Your task to perform on an android device: turn smart compose on in the gmail app Image 0: 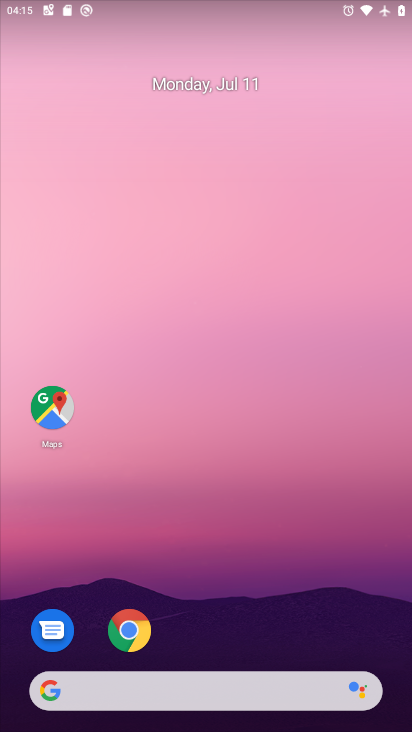
Step 0: drag from (197, 624) to (186, 103)
Your task to perform on an android device: turn smart compose on in the gmail app Image 1: 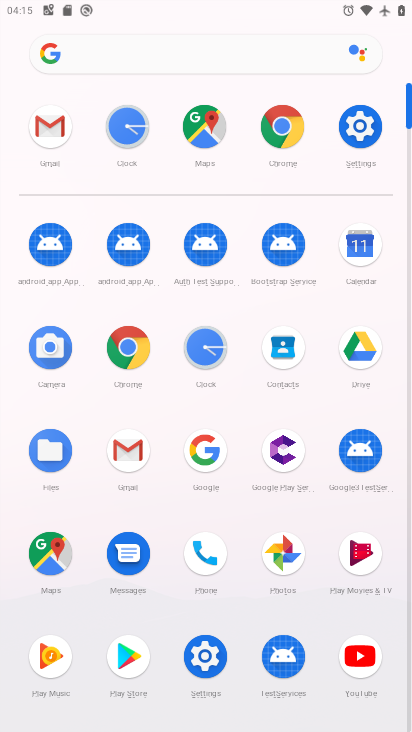
Step 1: click (345, 129)
Your task to perform on an android device: turn smart compose on in the gmail app Image 2: 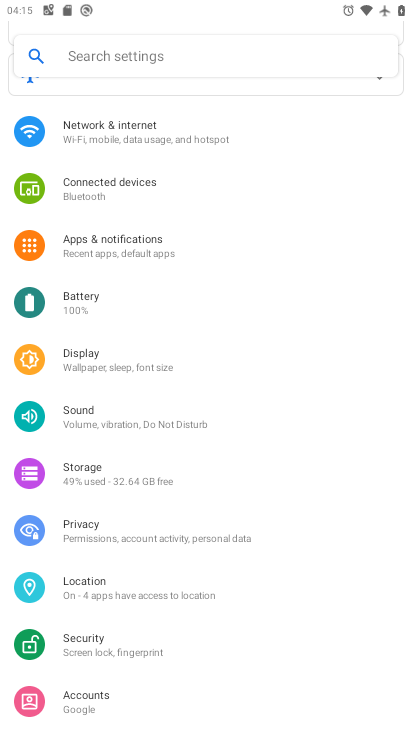
Step 2: press home button
Your task to perform on an android device: turn smart compose on in the gmail app Image 3: 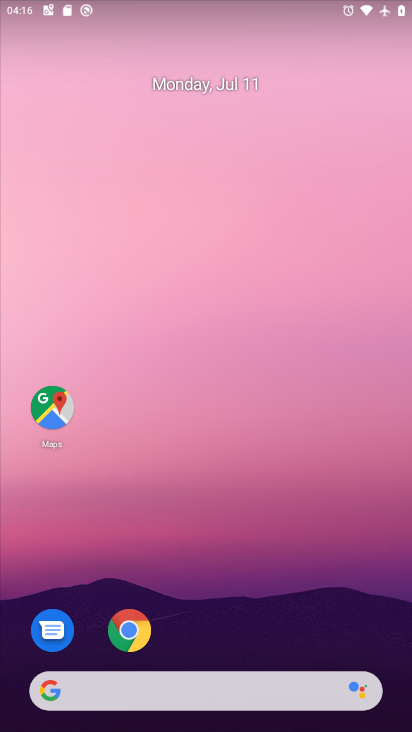
Step 3: drag from (281, 640) to (243, 97)
Your task to perform on an android device: turn smart compose on in the gmail app Image 4: 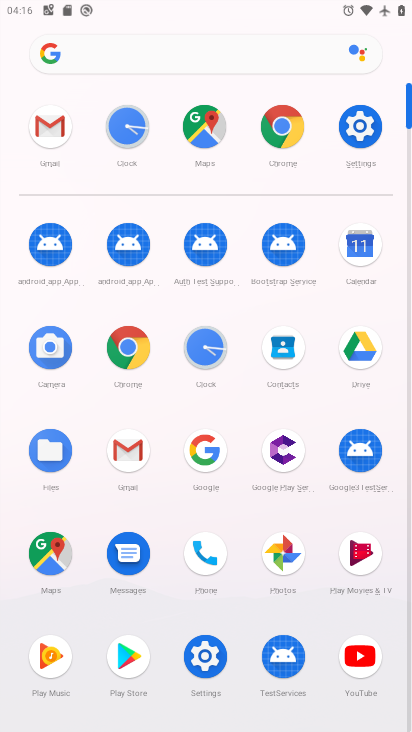
Step 4: click (68, 132)
Your task to perform on an android device: turn smart compose on in the gmail app Image 5: 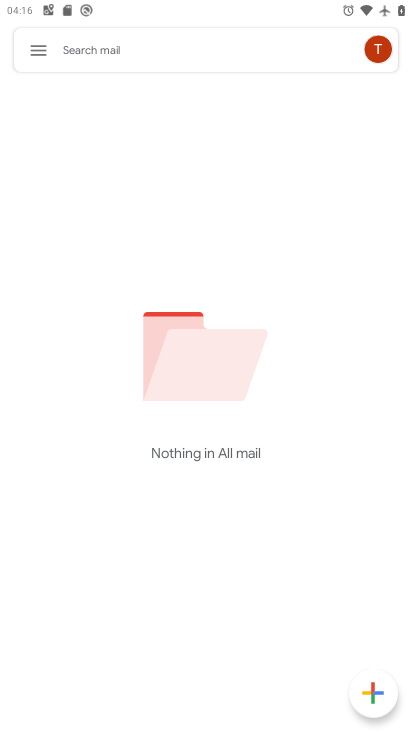
Step 5: click (52, 61)
Your task to perform on an android device: turn smart compose on in the gmail app Image 6: 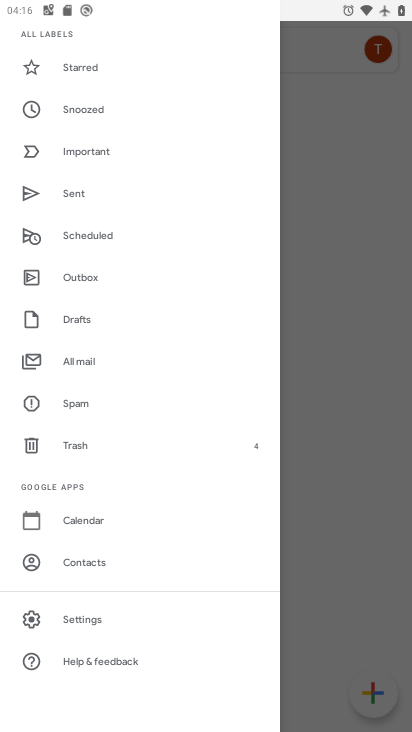
Step 6: click (95, 606)
Your task to perform on an android device: turn smart compose on in the gmail app Image 7: 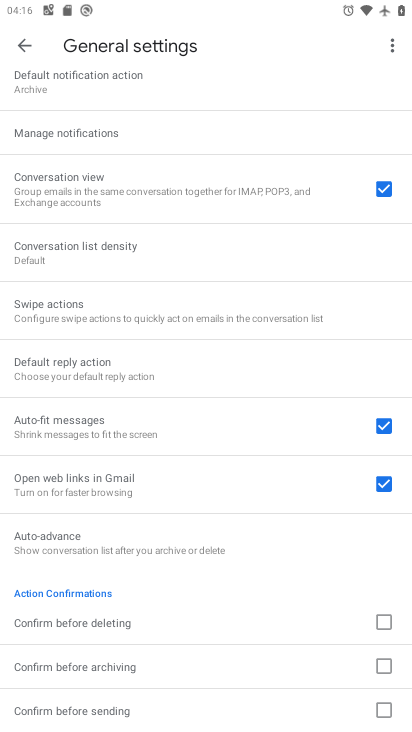
Step 7: click (27, 60)
Your task to perform on an android device: turn smart compose on in the gmail app Image 8: 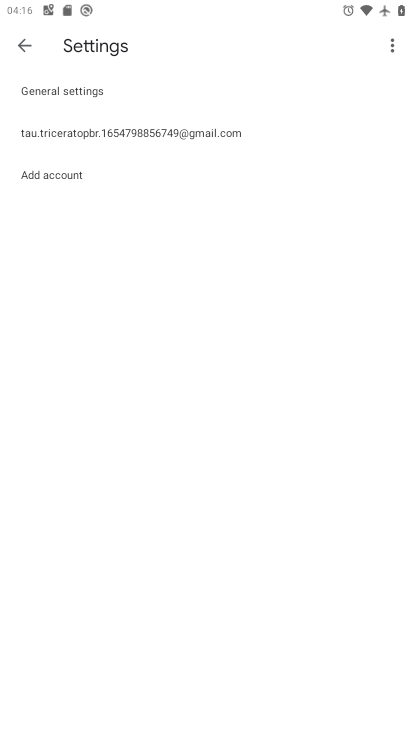
Step 8: click (131, 149)
Your task to perform on an android device: turn smart compose on in the gmail app Image 9: 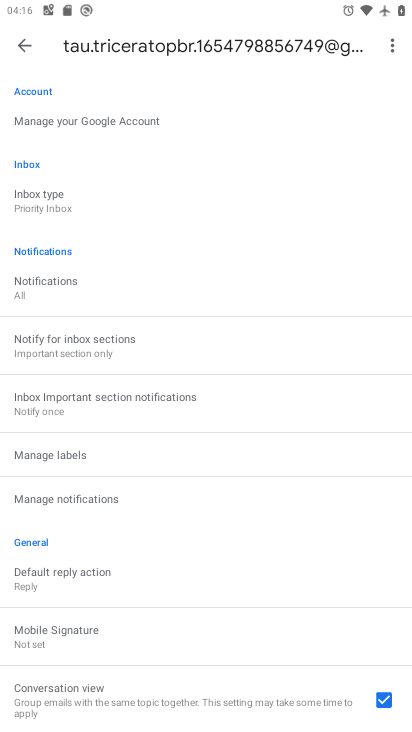
Step 9: drag from (140, 493) to (128, 287)
Your task to perform on an android device: turn smart compose on in the gmail app Image 10: 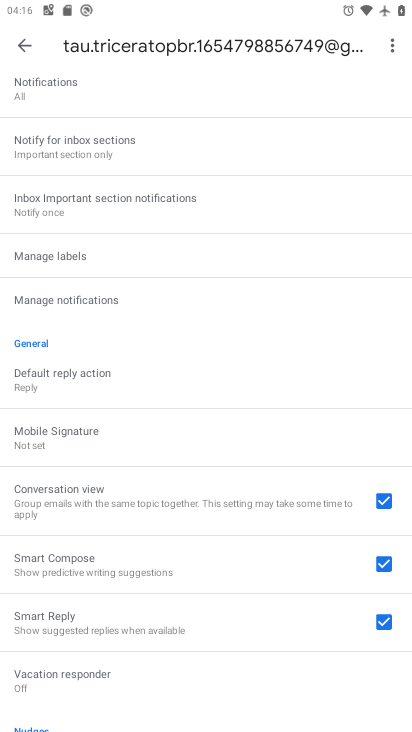
Step 10: click (387, 573)
Your task to perform on an android device: turn smart compose on in the gmail app Image 11: 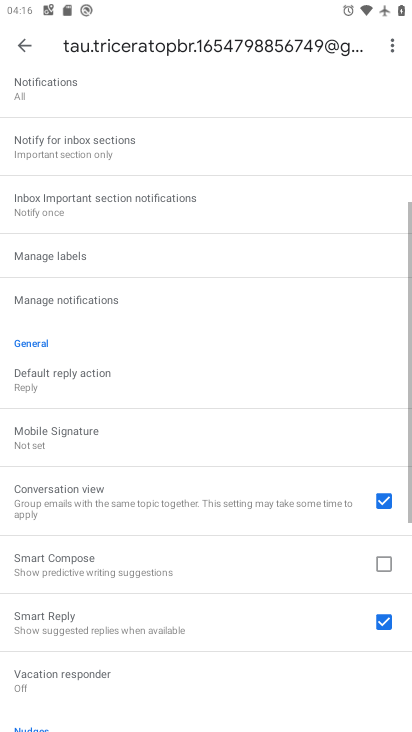
Step 11: task complete